Your task to perform on an android device: find photos in the google photos app Image 0: 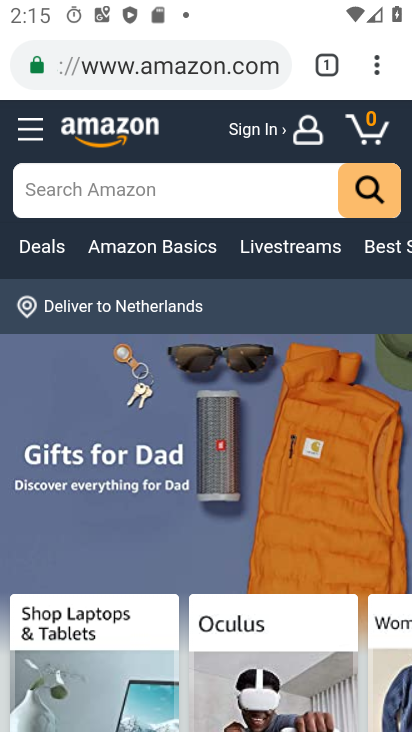
Step 0: press home button
Your task to perform on an android device: find photos in the google photos app Image 1: 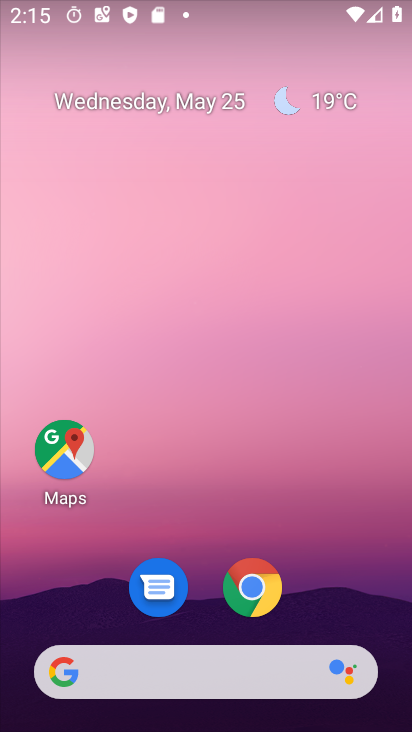
Step 1: drag from (209, 617) to (253, 93)
Your task to perform on an android device: find photos in the google photos app Image 2: 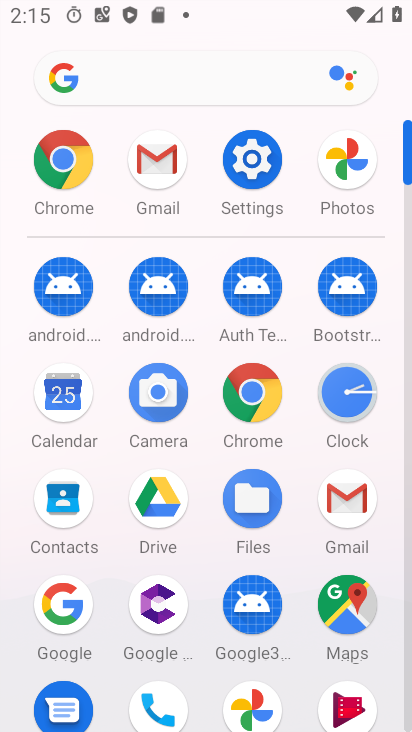
Step 2: click (350, 158)
Your task to perform on an android device: find photos in the google photos app Image 3: 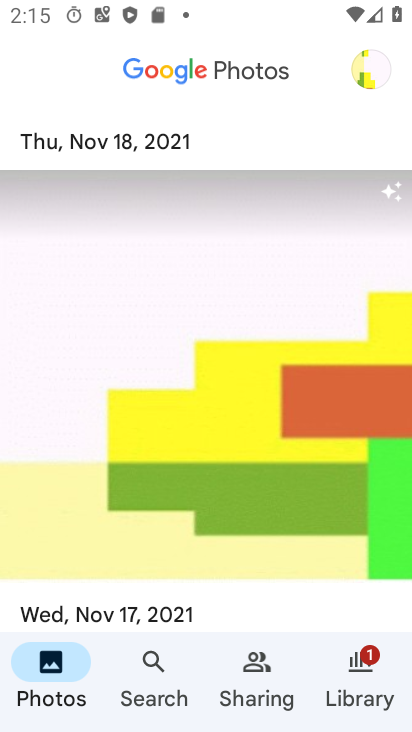
Step 3: task complete